Your task to perform on an android device: Do I have any events this weekend? Image 0: 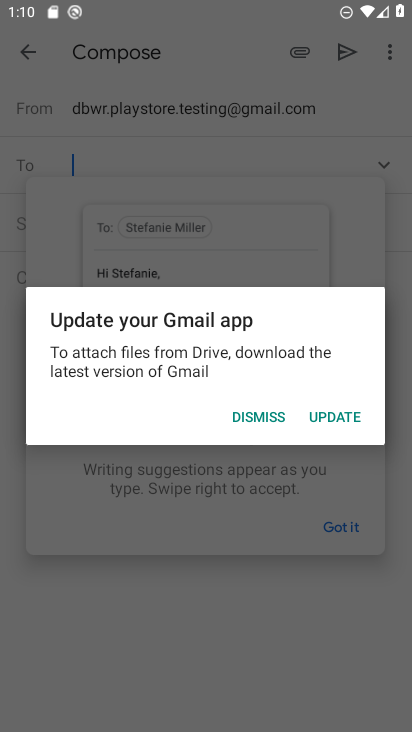
Step 0: press home button
Your task to perform on an android device: Do I have any events this weekend? Image 1: 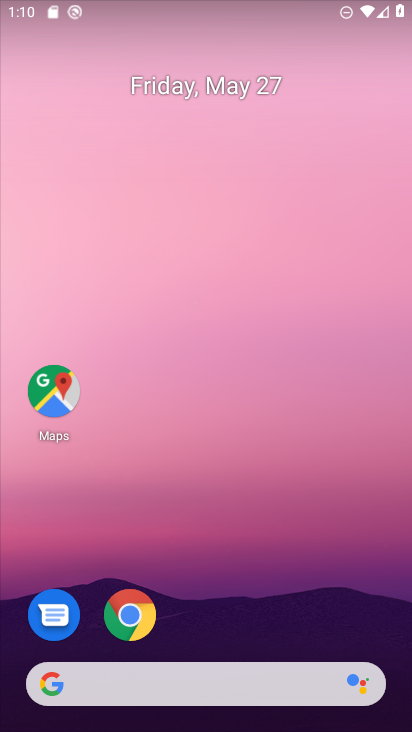
Step 1: drag from (277, 615) to (262, 100)
Your task to perform on an android device: Do I have any events this weekend? Image 2: 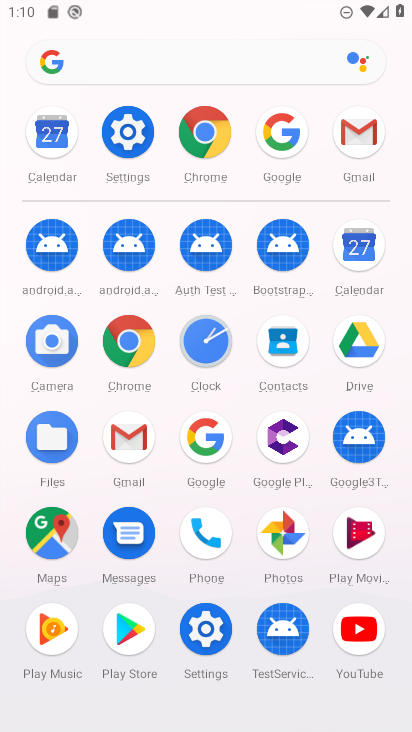
Step 2: drag from (179, 214) to (153, 94)
Your task to perform on an android device: Do I have any events this weekend? Image 3: 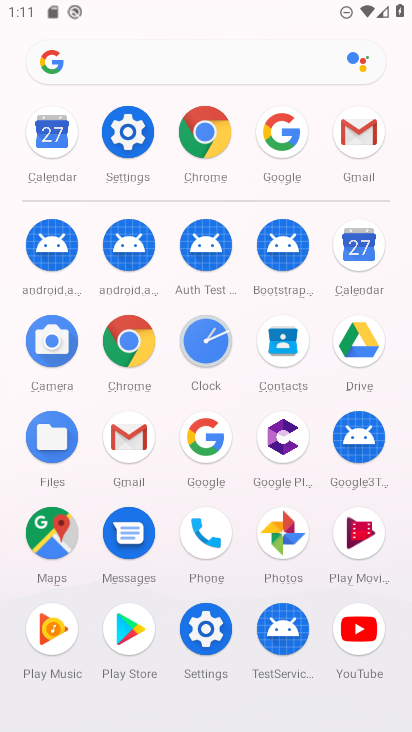
Step 3: click (343, 257)
Your task to perform on an android device: Do I have any events this weekend? Image 4: 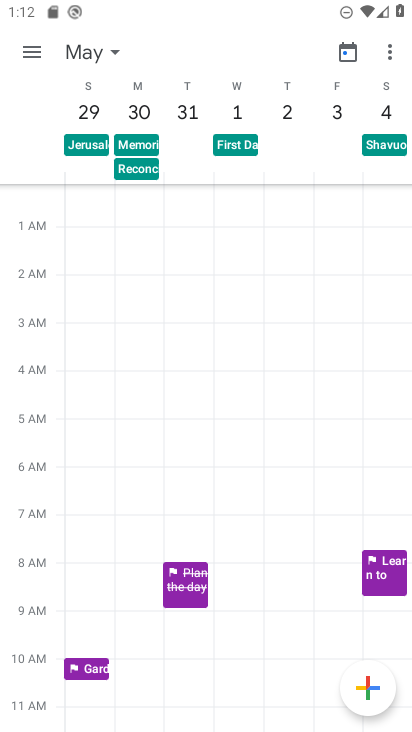
Step 4: click (72, 47)
Your task to perform on an android device: Do I have any events this weekend? Image 5: 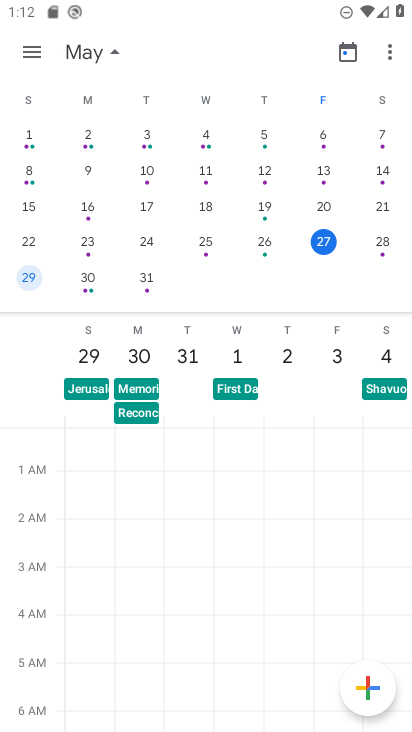
Step 5: click (322, 245)
Your task to perform on an android device: Do I have any events this weekend? Image 6: 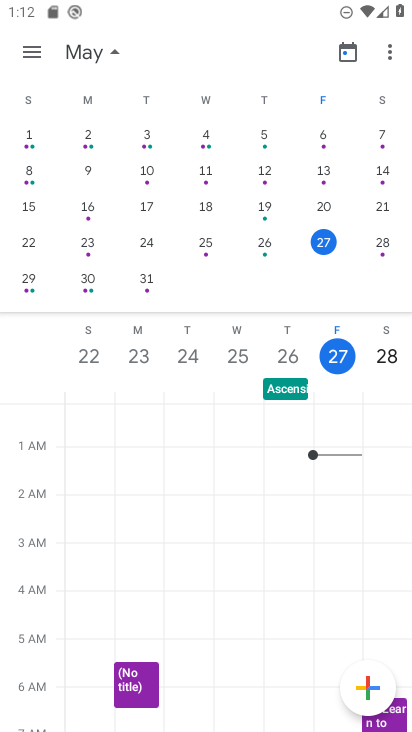
Step 6: click (104, 56)
Your task to perform on an android device: Do I have any events this weekend? Image 7: 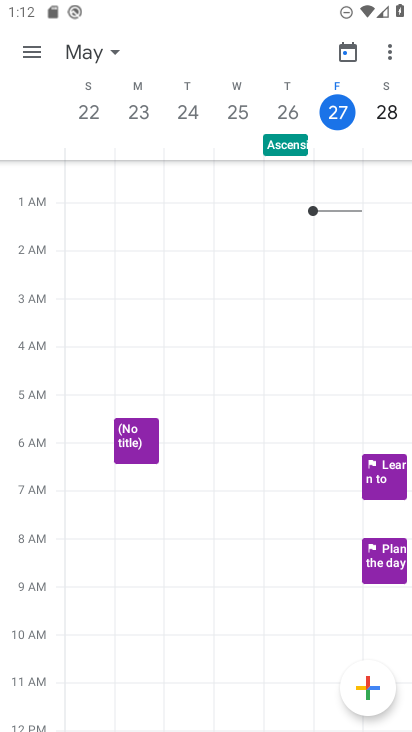
Step 7: task complete